Your task to perform on an android device: all mails in gmail Image 0: 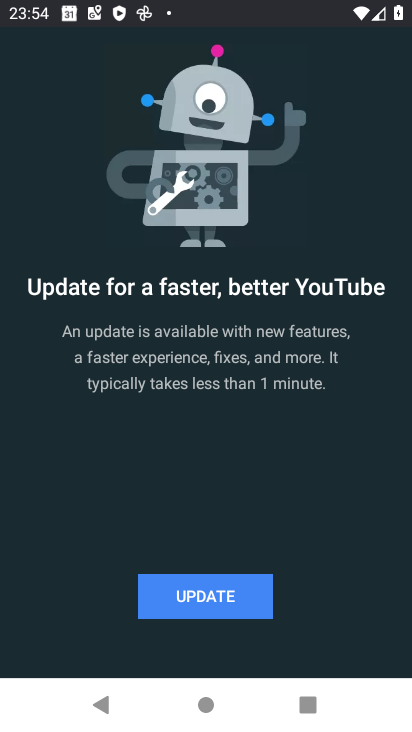
Step 0: press home button
Your task to perform on an android device: all mails in gmail Image 1: 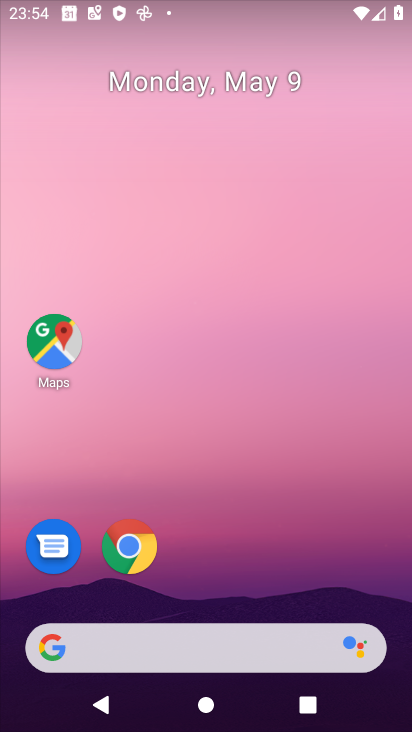
Step 1: drag from (246, 702) to (228, 90)
Your task to perform on an android device: all mails in gmail Image 2: 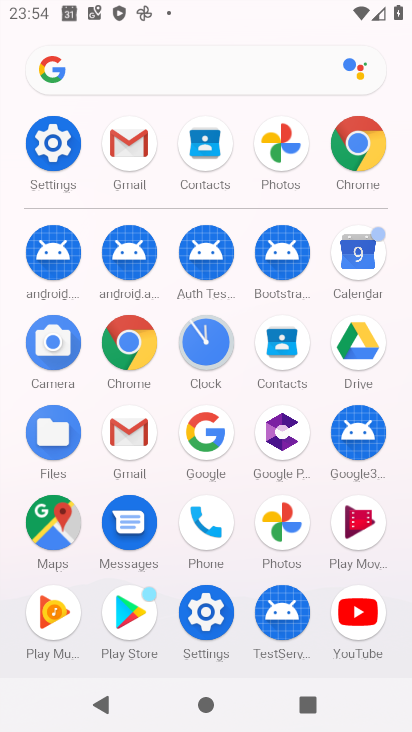
Step 2: click (143, 437)
Your task to perform on an android device: all mails in gmail Image 3: 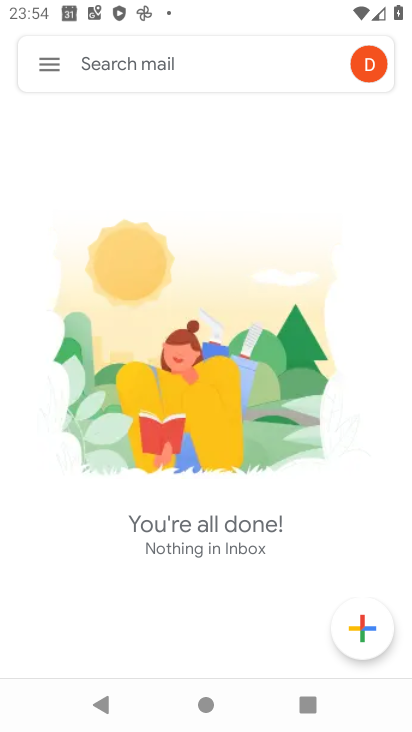
Step 3: click (39, 72)
Your task to perform on an android device: all mails in gmail Image 4: 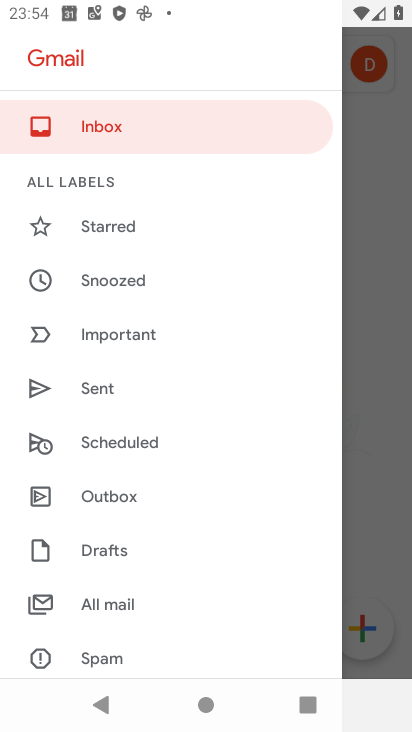
Step 4: click (131, 603)
Your task to perform on an android device: all mails in gmail Image 5: 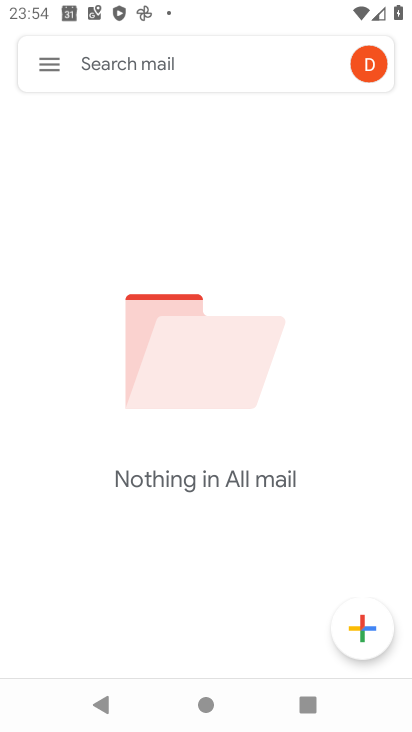
Step 5: task complete